Your task to perform on an android device: Search for vegetarian restaurants on Maps Image 0: 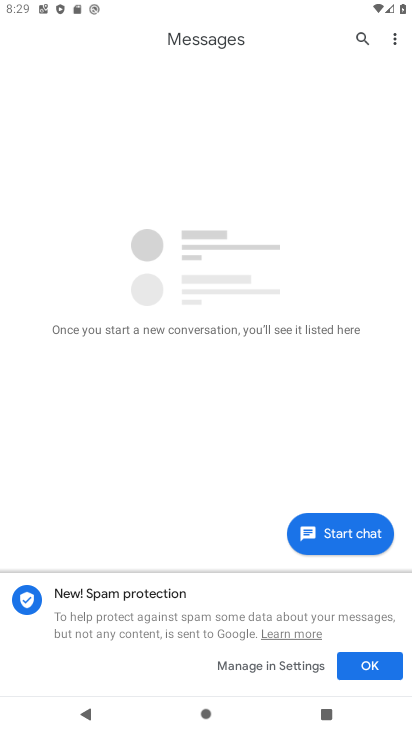
Step 0: press home button
Your task to perform on an android device: Search for vegetarian restaurants on Maps Image 1: 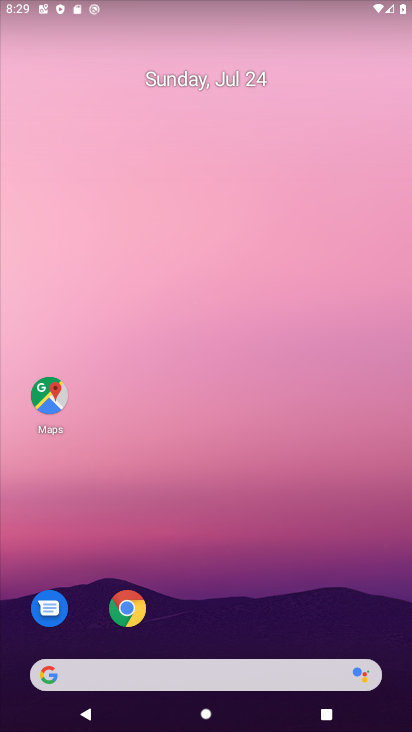
Step 1: click (53, 410)
Your task to perform on an android device: Search for vegetarian restaurants on Maps Image 2: 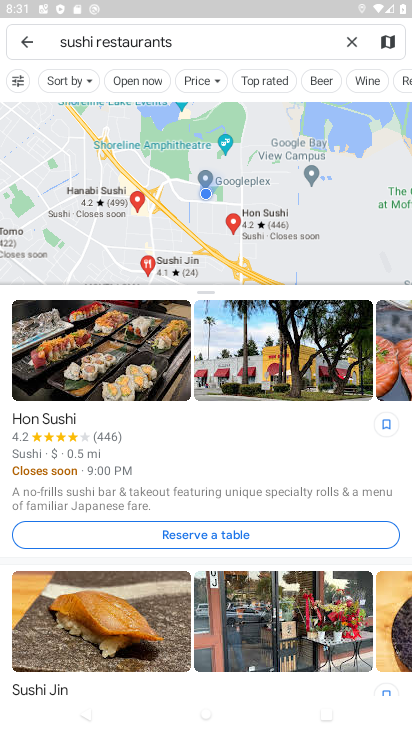
Step 2: click (349, 45)
Your task to perform on an android device: Search for vegetarian restaurants on Maps Image 3: 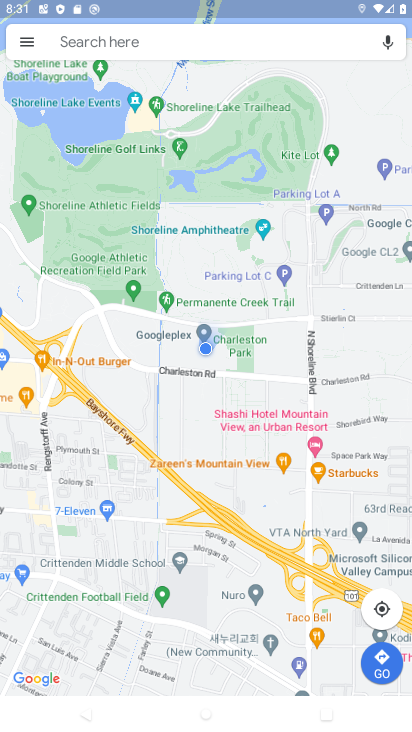
Step 3: click (97, 36)
Your task to perform on an android device: Search for vegetarian restaurants on Maps Image 4: 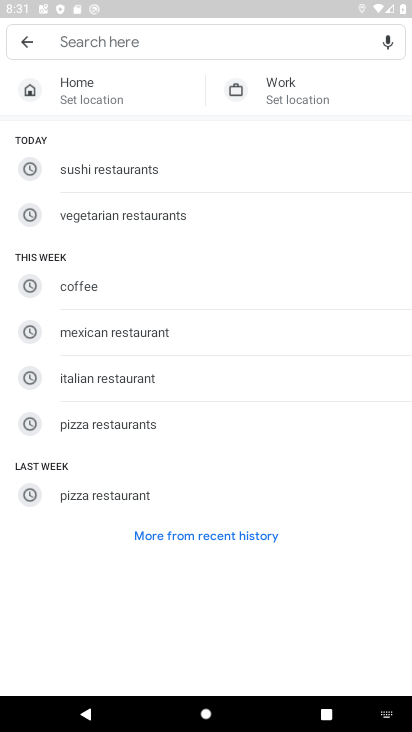
Step 4: type "vegetarian restaurants"
Your task to perform on an android device: Search for vegetarian restaurants on Maps Image 5: 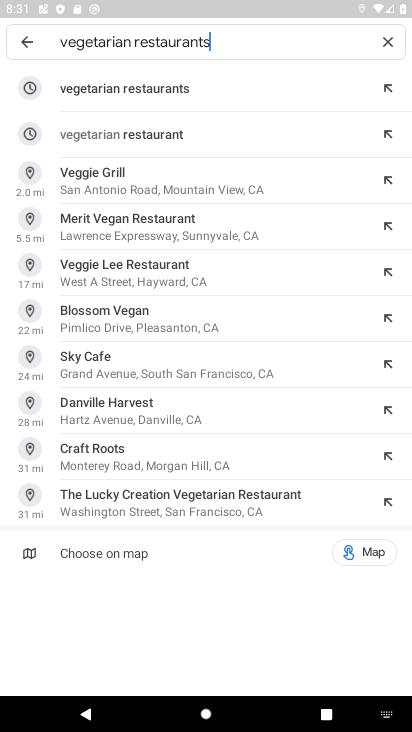
Step 5: click (124, 89)
Your task to perform on an android device: Search for vegetarian restaurants on Maps Image 6: 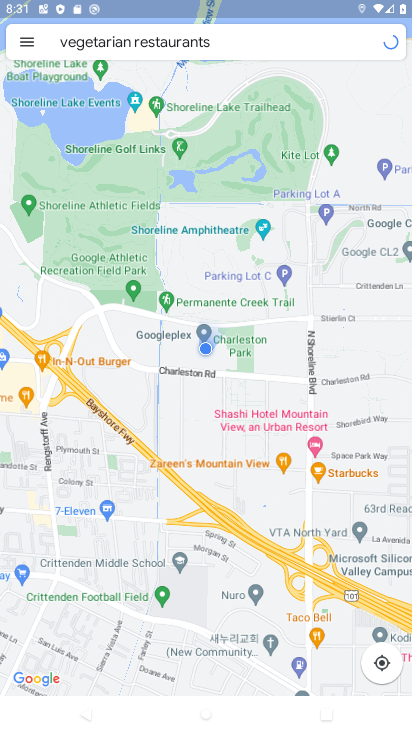
Step 6: task complete